Your task to perform on an android device: visit the assistant section in the google photos Image 0: 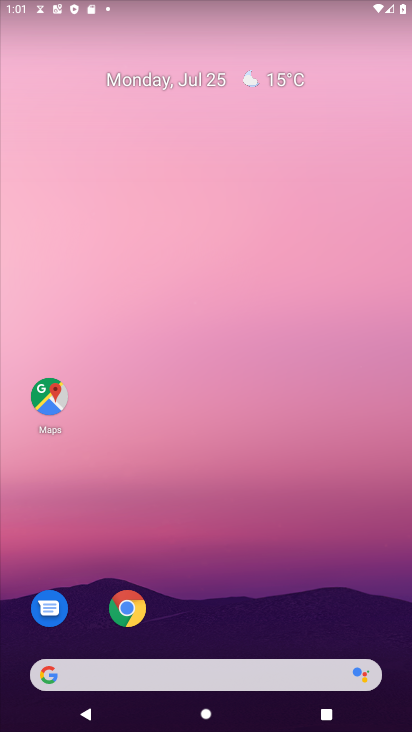
Step 0: drag from (255, 528) to (262, 61)
Your task to perform on an android device: visit the assistant section in the google photos Image 1: 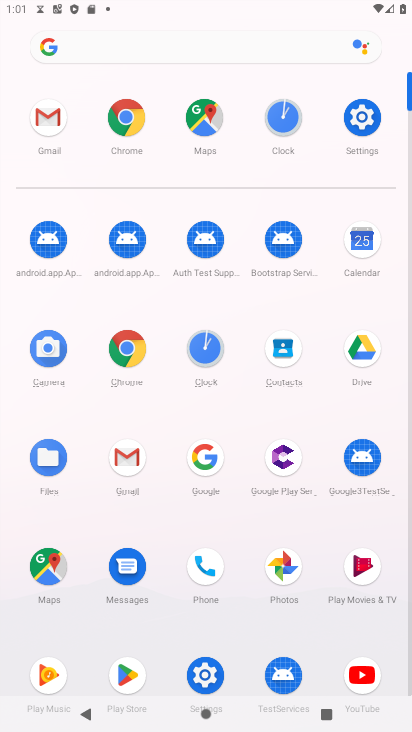
Step 1: click (281, 573)
Your task to perform on an android device: visit the assistant section in the google photos Image 2: 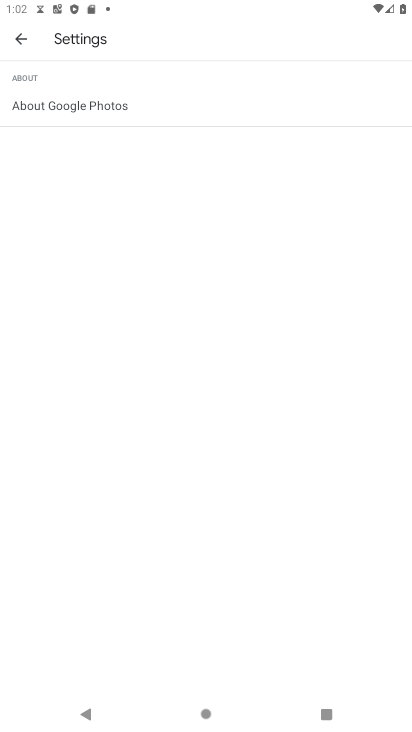
Step 2: press back button
Your task to perform on an android device: visit the assistant section in the google photos Image 3: 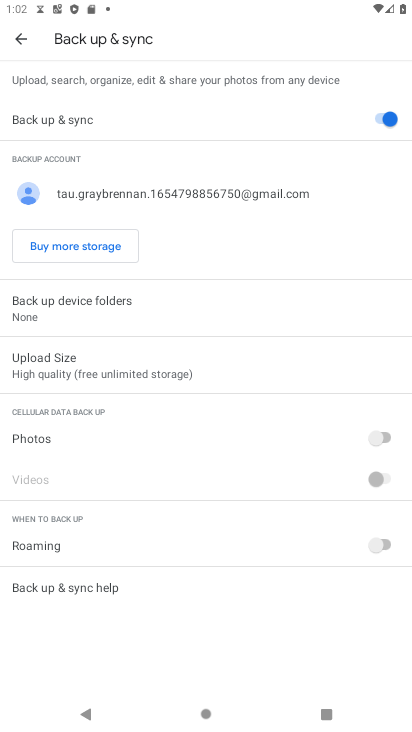
Step 3: press back button
Your task to perform on an android device: visit the assistant section in the google photos Image 4: 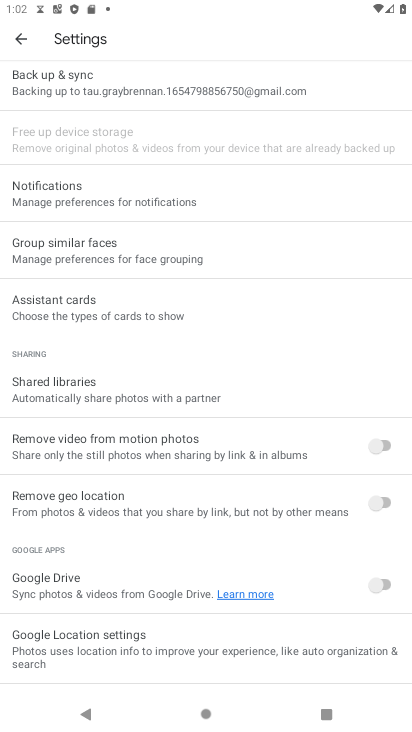
Step 4: click (202, 313)
Your task to perform on an android device: visit the assistant section in the google photos Image 5: 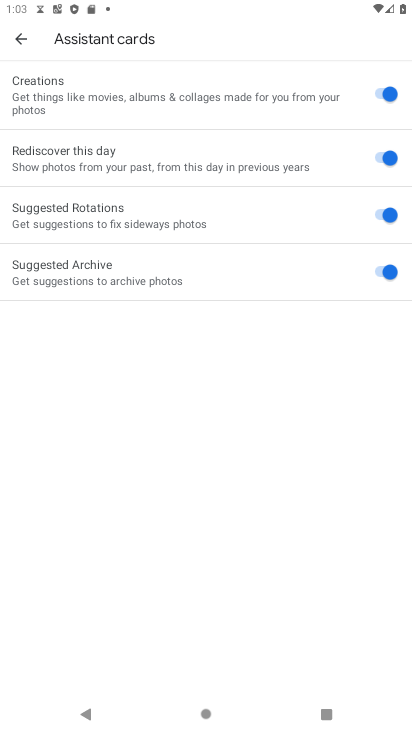
Step 5: task complete